Your task to perform on an android device: Open Android settings Image 0: 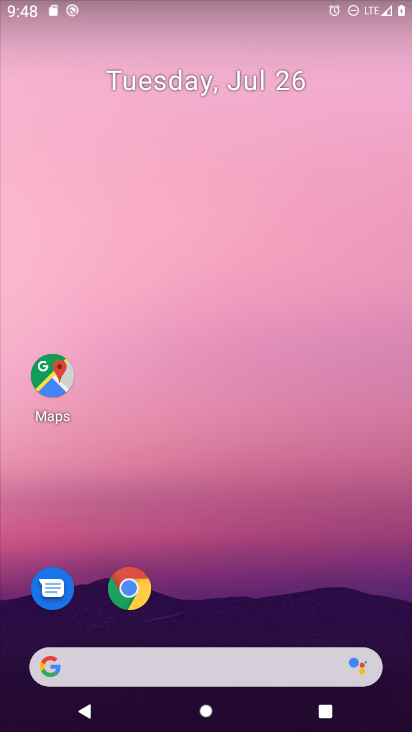
Step 0: drag from (204, 667) to (220, 35)
Your task to perform on an android device: Open Android settings Image 1: 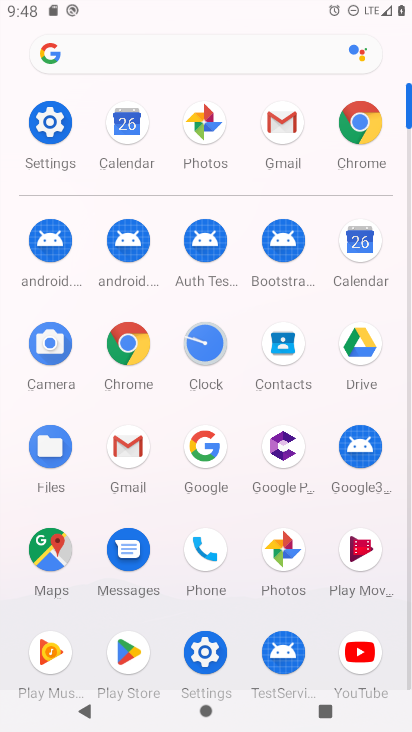
Step 1: click (38, 142)
Your task to perform on an android device: Open Android settings Image 2: 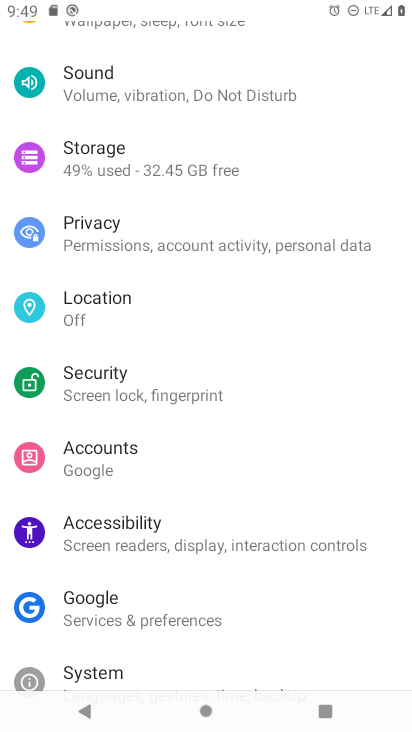
Step 2: drag from (139, 517) to (132, 128)
Your task to perform on an android device: Open Android settings Image 3: 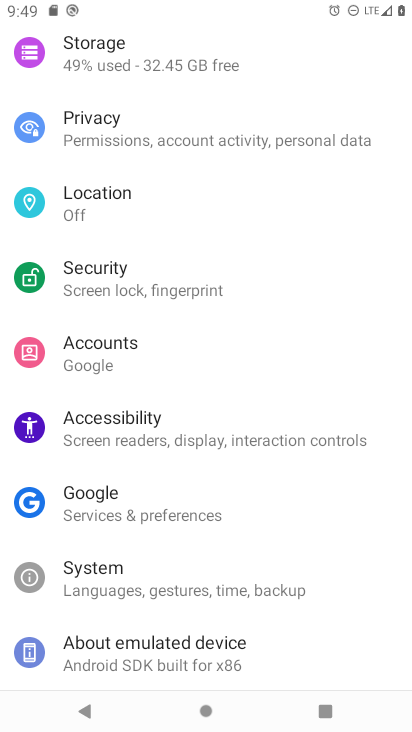
Step 3: click (174, 663)
Your task to perform on an android device: Open Android settings Image 4: 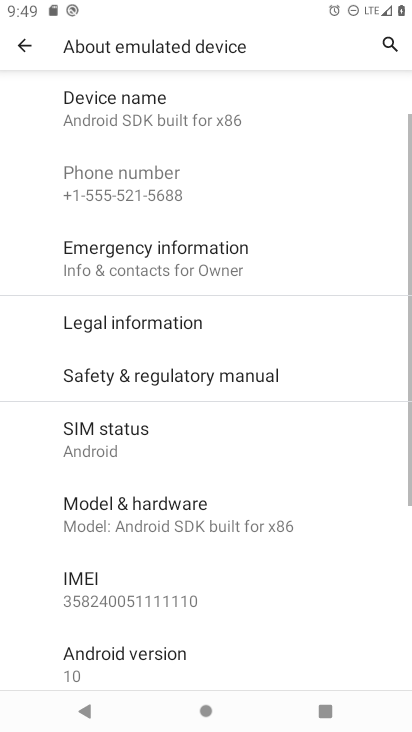
Step 4: drag from (124, 559) to (158, 377)
Your task to perform on an android device: Open Android settings Image 5: 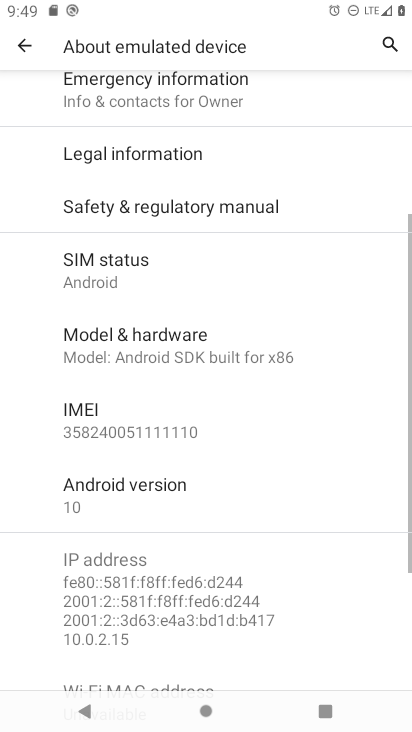
Step 5: click (160, 492)
Your task to perform on an android device: Open Android settings Image 6: 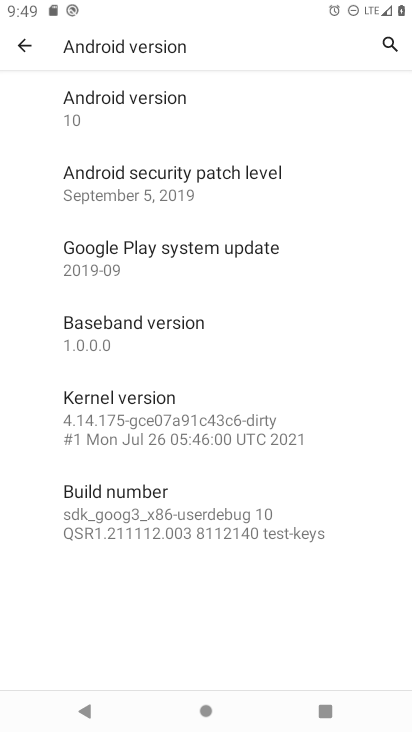
Step 6: task complete